Your task to perform on an android device: star an email in the gmail app Image 0: 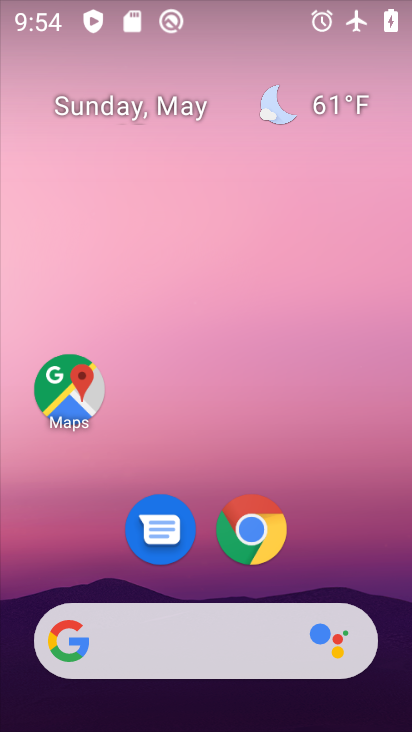
Step 0: drag from (200, 731) to (158, 188)
Your task to perform on an android device: star an email in the gmail app Image 1: 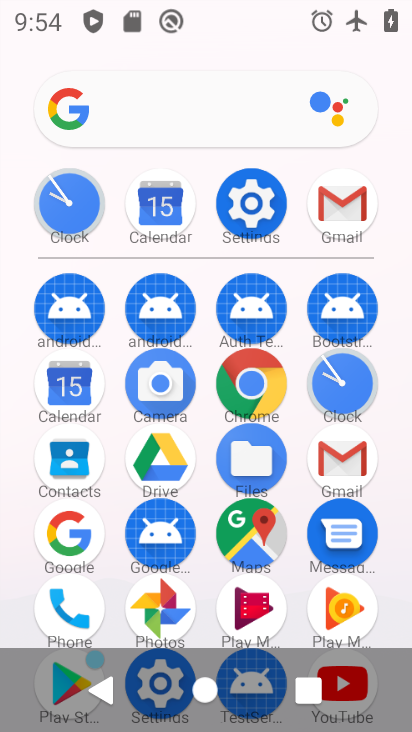
Step 1: click (350, 457)
Your task to perform on an android device: star an email in the gmail app Image 2: 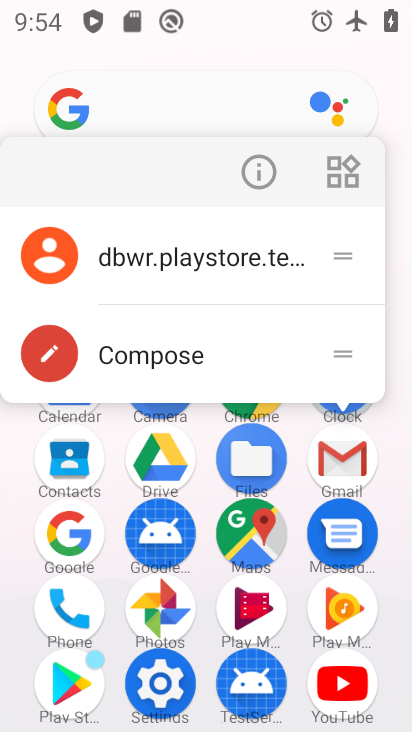
Step 2: click (323, 445)
Your task to perform on an android device: star an email in the gmail app Image 3: 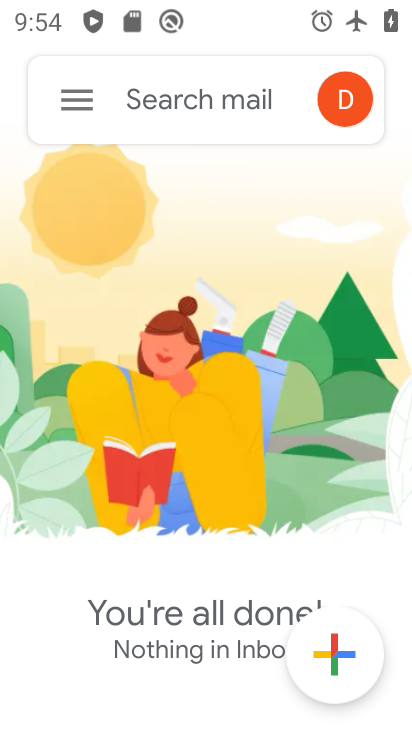
Step 3: task complete